Your task to perform on an android device: Open Google Chrome Image 0: 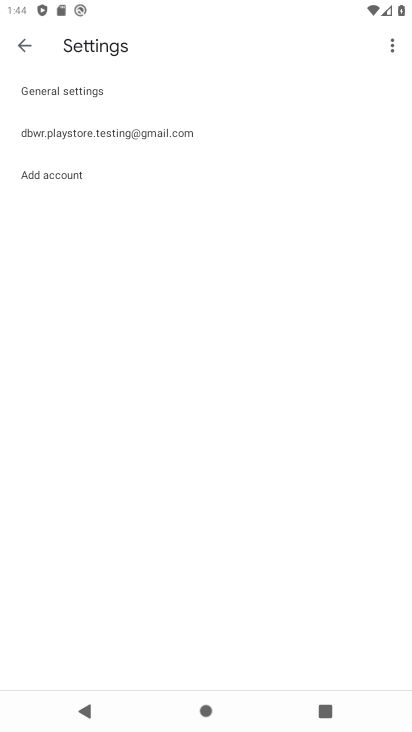
Step 0: press home button
Your task to perform on an android device: Open Google Chrome Image 1: 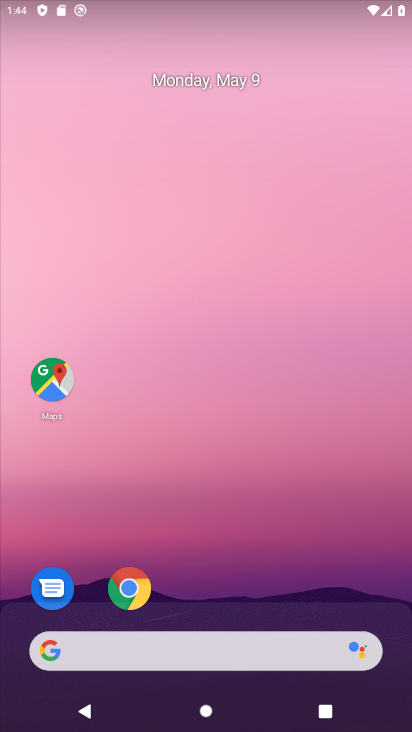
Step 1: click (131, 586)
Your task to perform on an android device: Open Google Chrome Image 2: 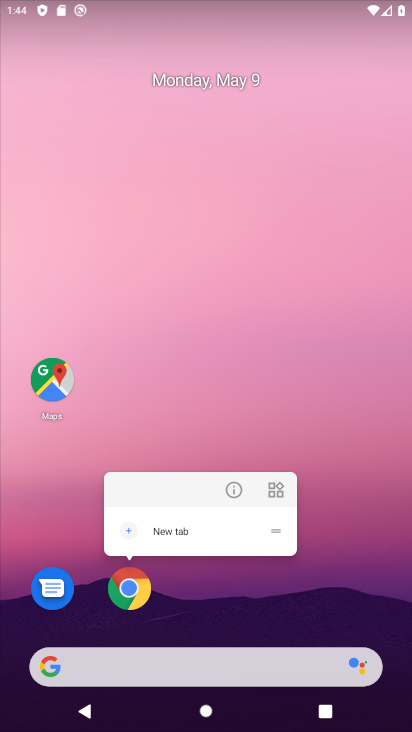
Step 2: click (156, 360)
Your task to perform on an android device: Open Google Chrome Image 3: 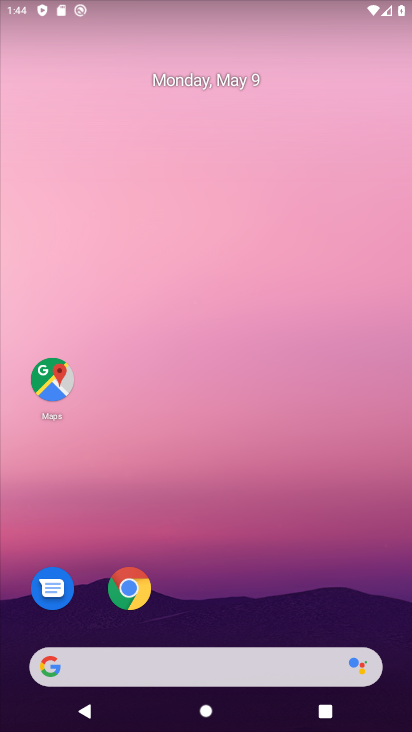
Step 3: click (130, 590)
Your task to perform on an android device: Open Google Chrome Image 4: 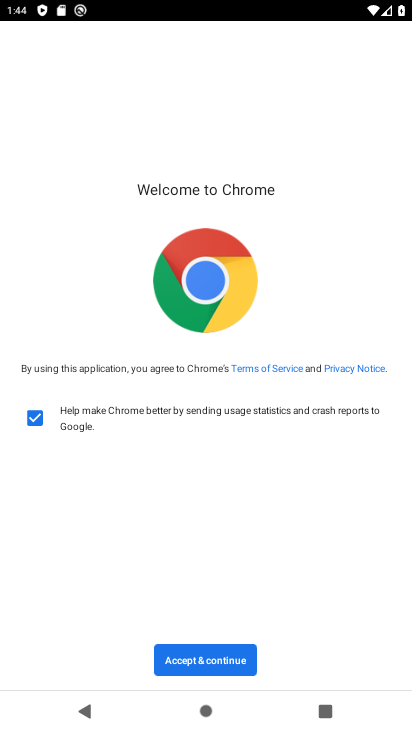
Step 4: click (202, 663)
Your task to perform on an android device: Open Google Chrome Image 5: 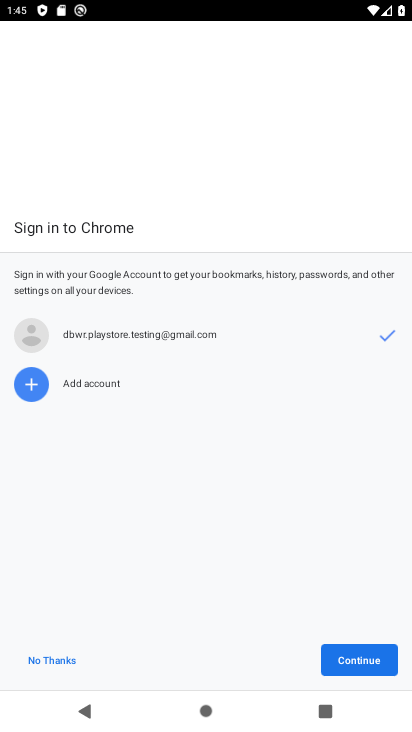
Step 5: click (340, 663)
Your task to perform on an android device: Open Google Chrome Image 6: 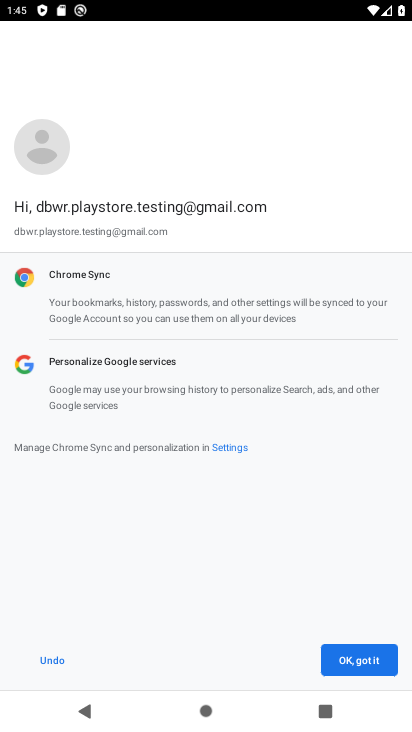
Step 6: click (346, 660)
Your task to perform on an android device: Open Google Chrome Image 7: 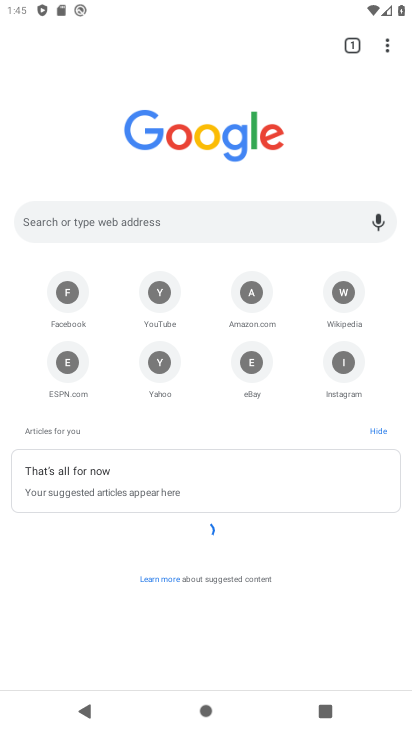
Step 7: task complete